Your task to perform on an android device: add a contact Image 0: 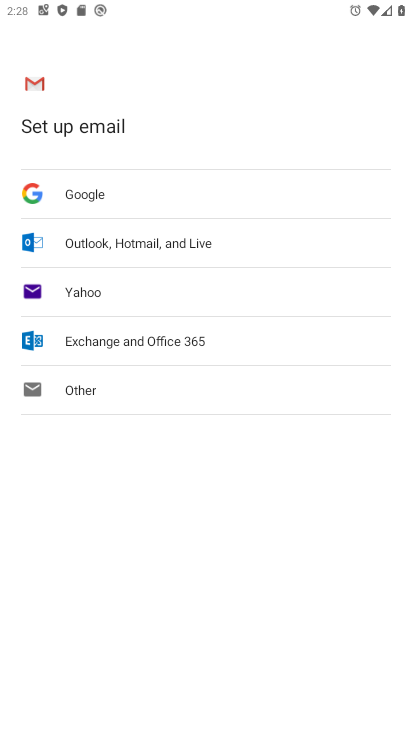
Step 0: press home button
Your task to perform on an android device: add a contact Image 1: 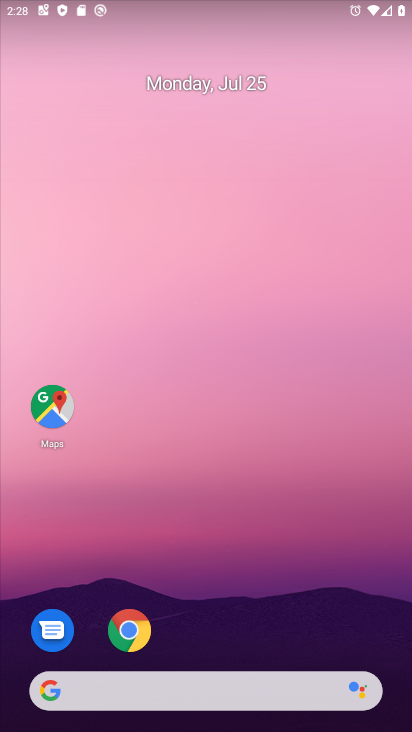
Step 1: drag from (201, 641) to (207, 5)
Your task to perform on an android device: add a contact Image 2: 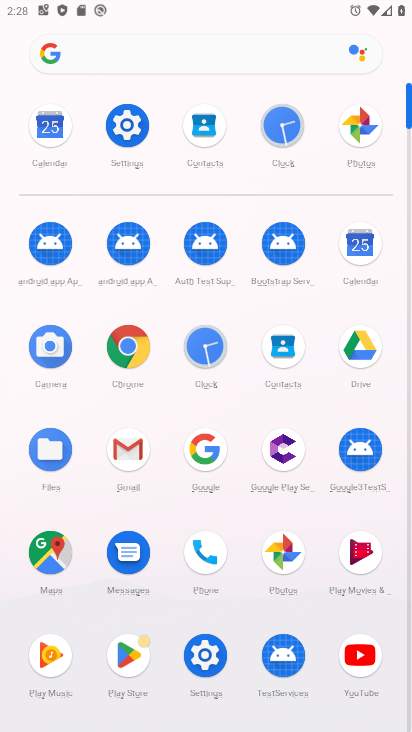
Step 2: click (213, 177)
Your task to perform on an android device: add a contact Image 3: 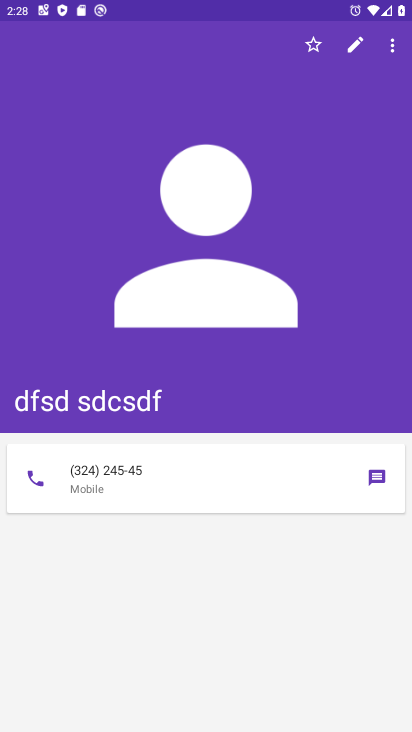
Step 3: press back button
Your task to perform on an android device: add a contact Image 4: 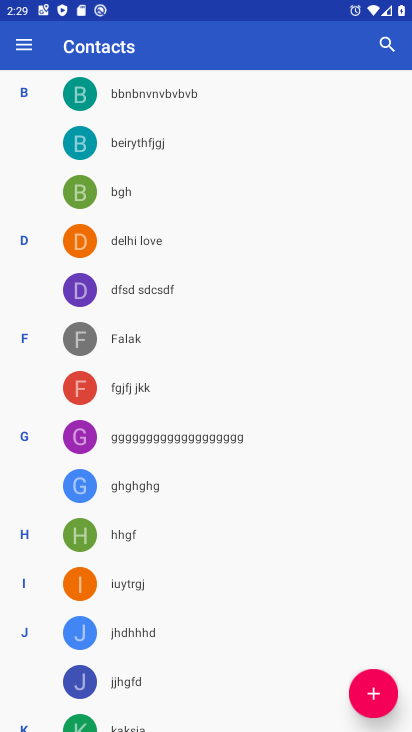
Step 4: click (382, 688)
Your task to perform on an android device: add a contact Image 5: 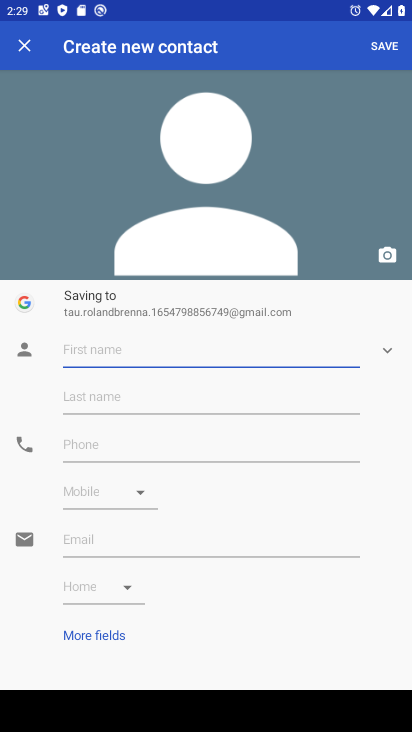
Step 5: type "sddvvdf"
Your task to perform on an android device: add a contact Image 6: 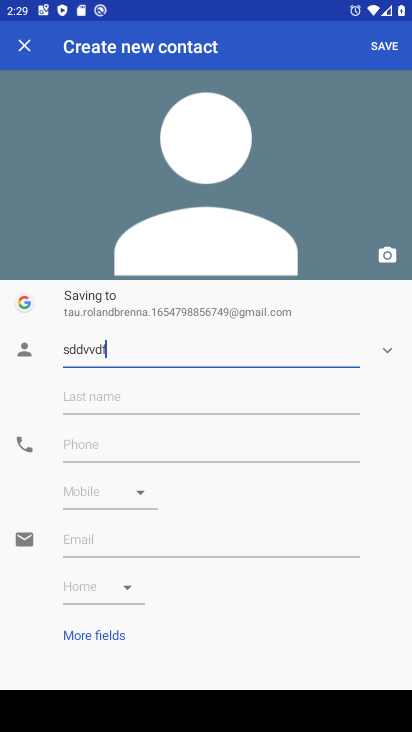
Step 6: click (277, 398)
Your task to perform on an android device: add a contact Image 7: 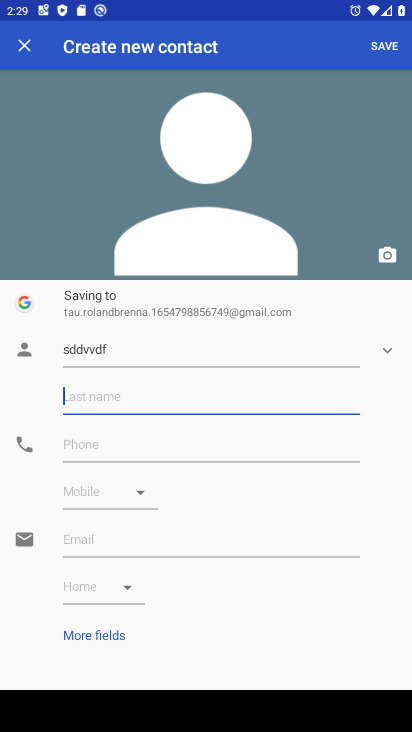
Step 7: type "sgdgt"
Your task to perform on an android device: add a contact Image 8: 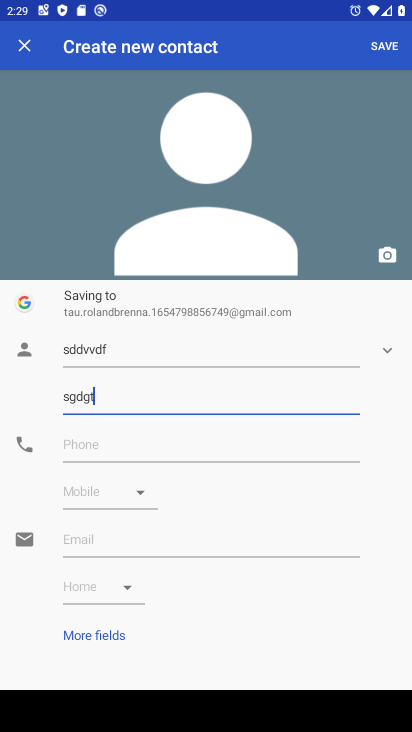
Step 8: click (287, 455)
Your task to perform on an android device: add a contact Image 9: 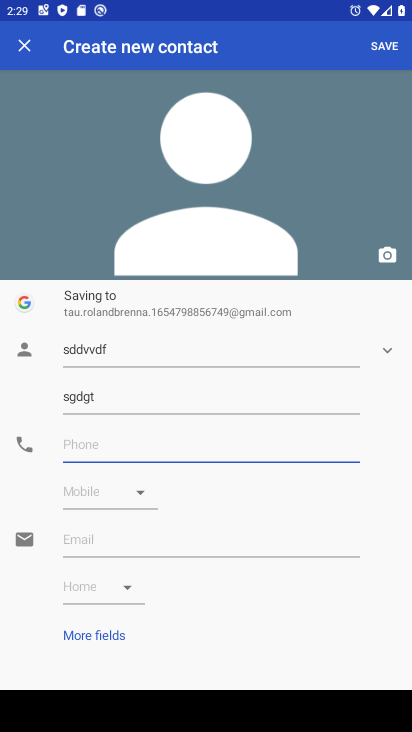
Step 9: type "322546789"
Your task to perform on an android device: add a contact Image 10: 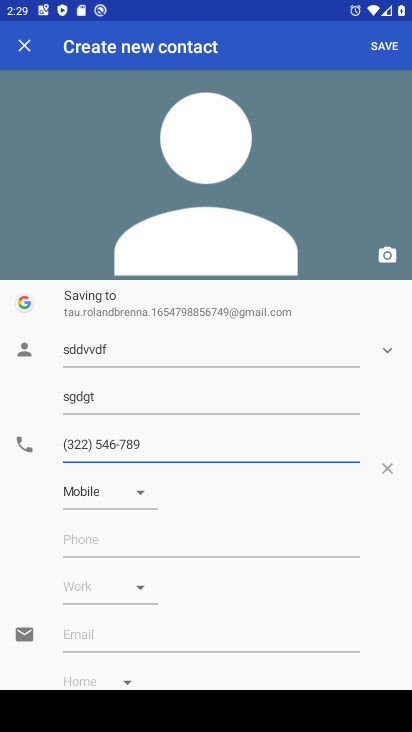
Step 10: click (384, 43)
Your task to perform on an android device: add a contact Image 11: 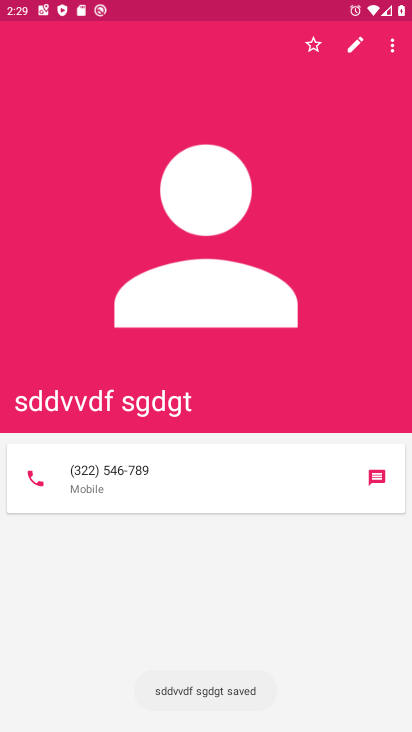
Step 11: task complete